Your task to perform on an android device: set the stopwatch Image 0: 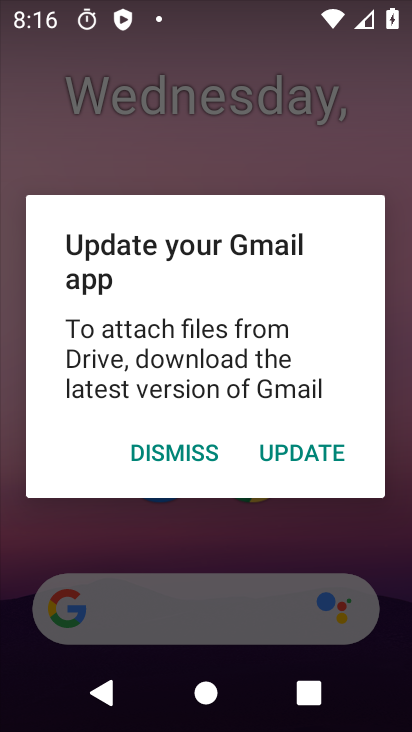
Step 0: press home button
Your task to perform on an android device: set the stopwatch Image 1: 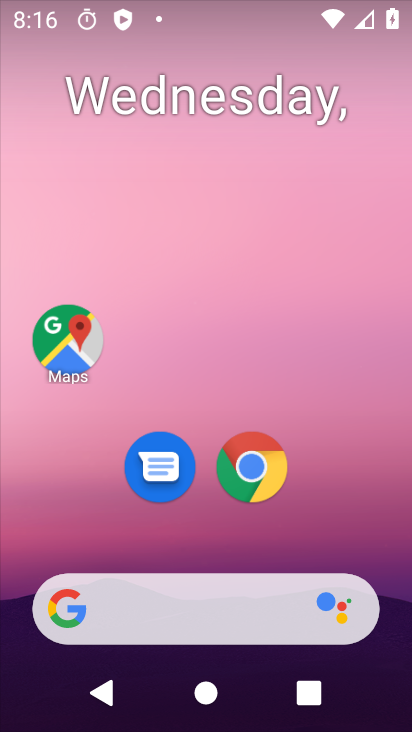
Step 1: drag from (386, 577) to (322, 153)
Your task to perform on an android device: set the stopwatch Image 2: 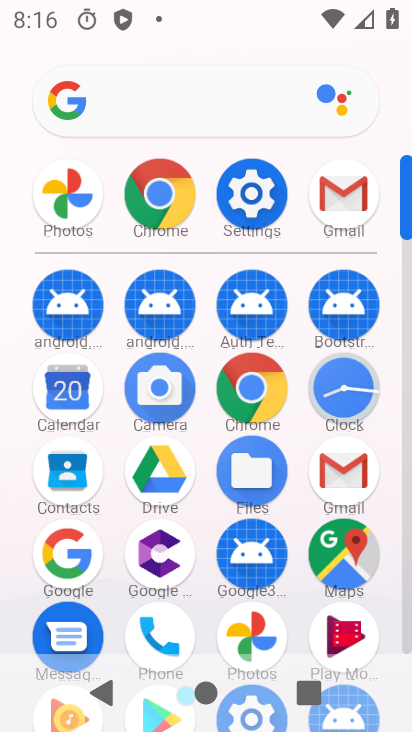
Step 2: click (341, 392)
Your task to perform on an android device: set the stopwatch Image 3: 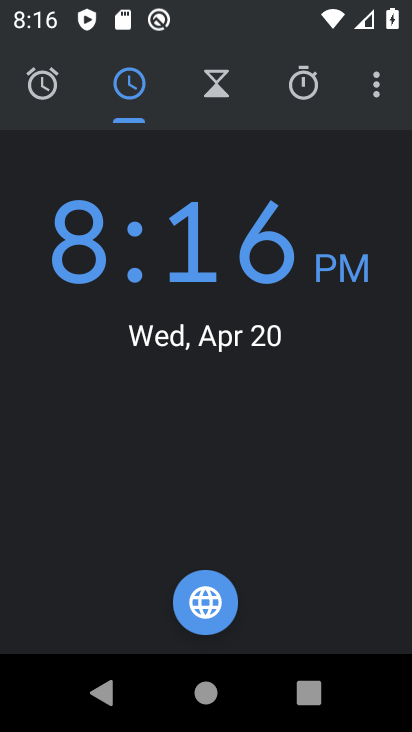
Step 3: click (302, 84)
Your task to perform on an android device: set the stopwatch Image 4: 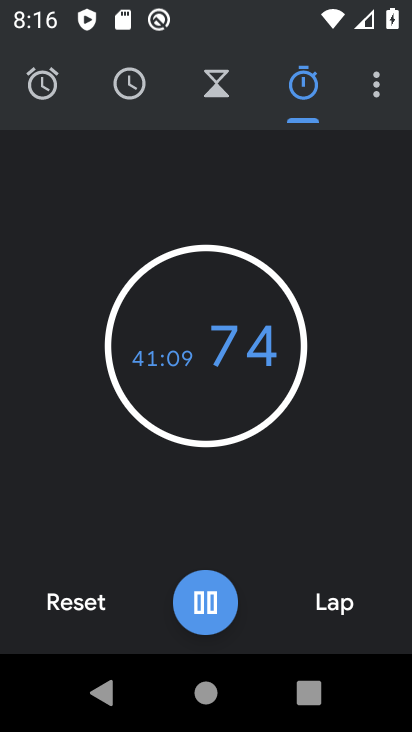
Step 4: click (53, 601)
Your task to perform on an android device: set the stopwatch Image 5: 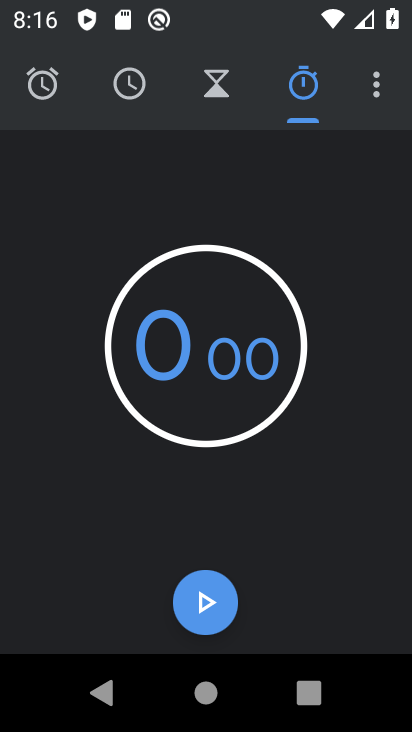
Step 5: click (189, 598)
Your task to perform on an android device: set the stopwatch Image 6: 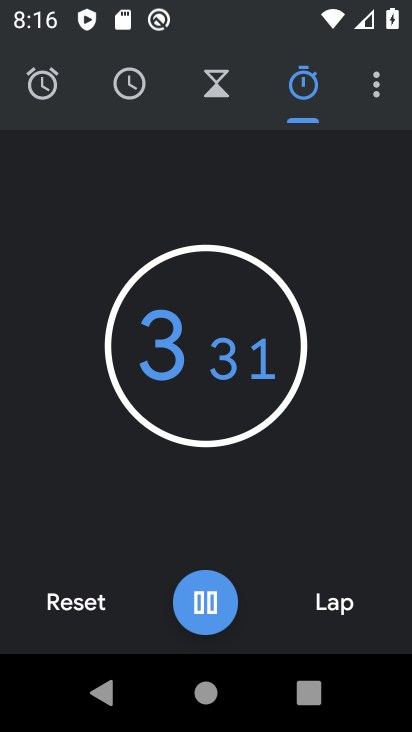
Step 6: task complete